Your task to perform on an android device: What is the recent news? Image 0: 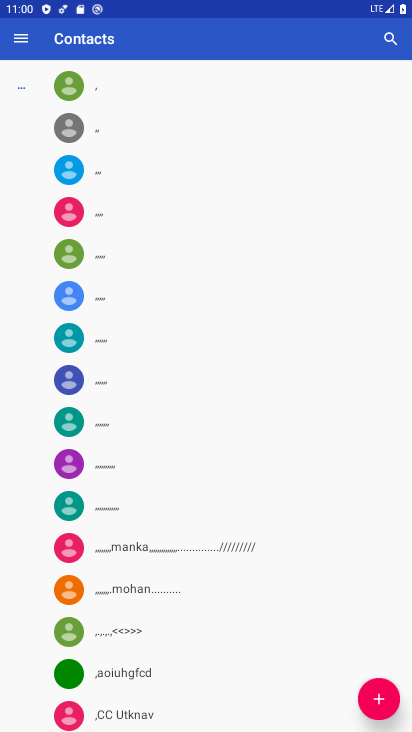
Step 0: press home button
Your task to perform on an android device: What is the recent news? Image 1: 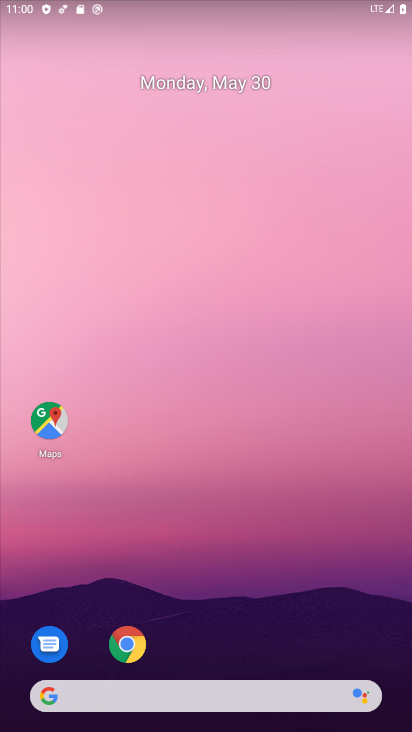
Step 1: click (124, 653)
Your task to perform on an android device: What is the recent news? Image 2: 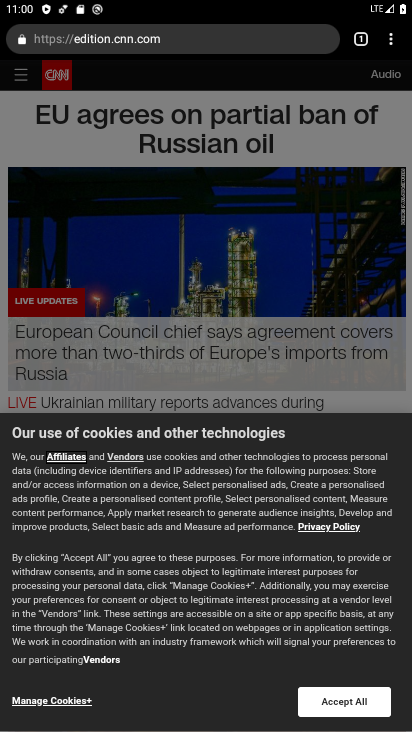
Step 2: click (135, 41)
Your task to perform on an android device: What is the recent news? Image 3: 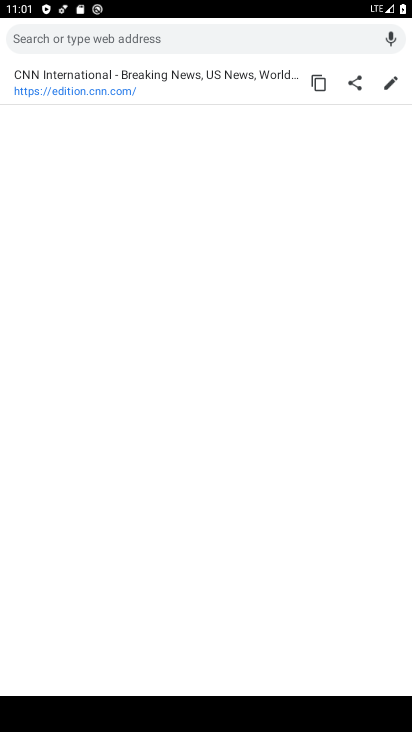
Step 3: type "What is the recent news?"
Your task to perform on an android device: What is the recent news? Image 4: 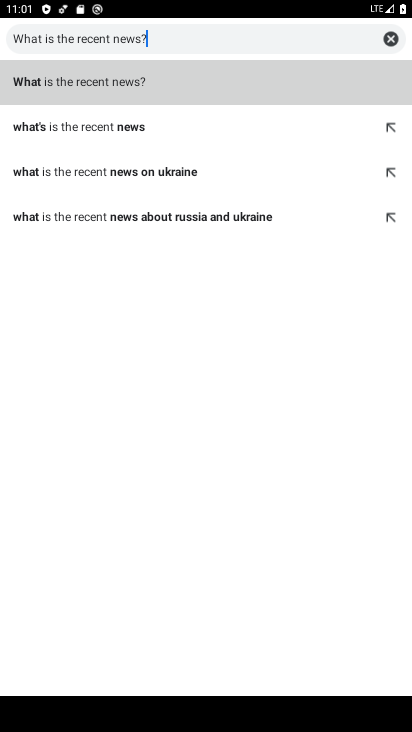
Step 4: click (256, 77)
Your task to perform on an android device: What is the recent news? Image 5: 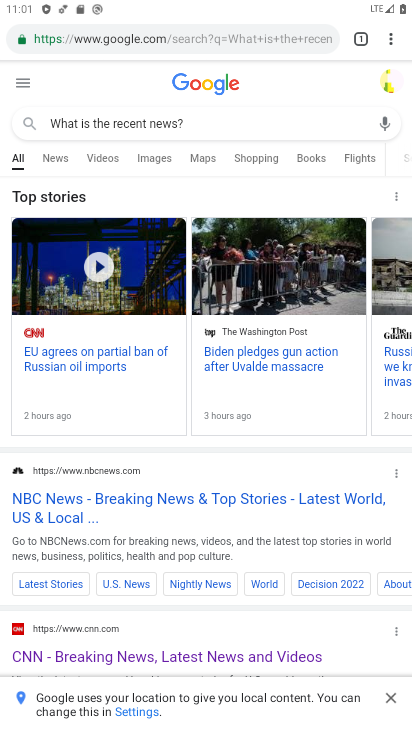
Step 5: task complete